Your task to perform on an android device: choose inbox layout in the gmail app Image 0: 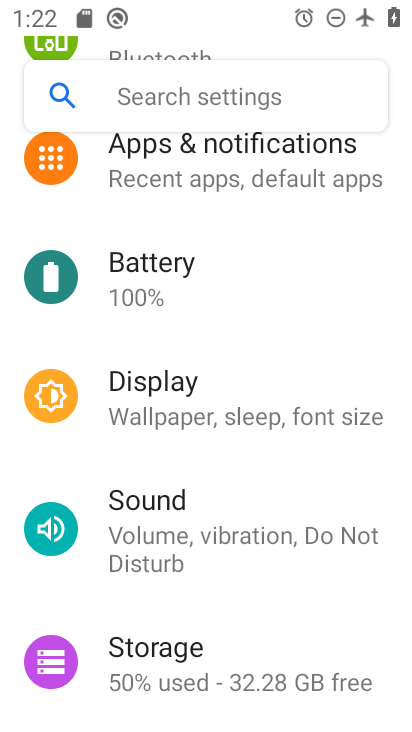
Step 0: press home button
Your task to perform on an android device: choose inbox layout in the gmail app Image 1: 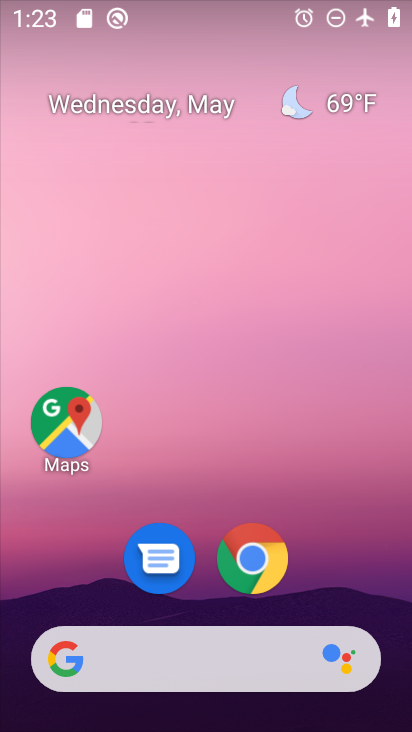
Step 1: drag from (397, 656) to (248, 78)
Your task to perform on an android device: choose inbox layout in the gmail app Image 2: 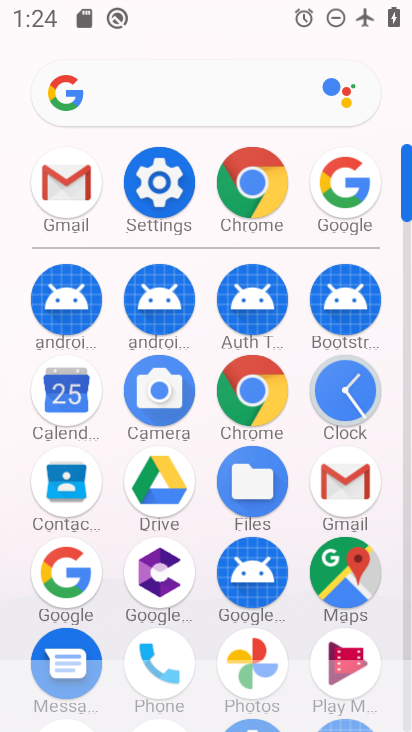
Step 2: click (344, 514)
Your task to perform on an android device: choose inbox layout in the gmail app Image 3: 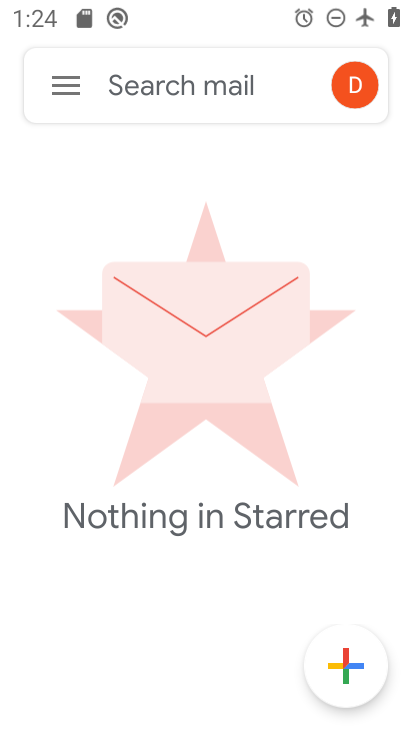
Step 3: task complete